Your task to perform on an android device: Open Android settings Image 0: 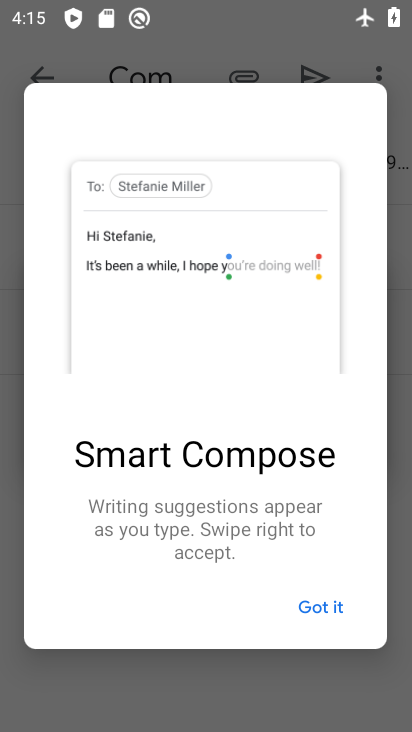
Step 0: press home button
Your task to perform on an android device: Open Android settings Image 1: 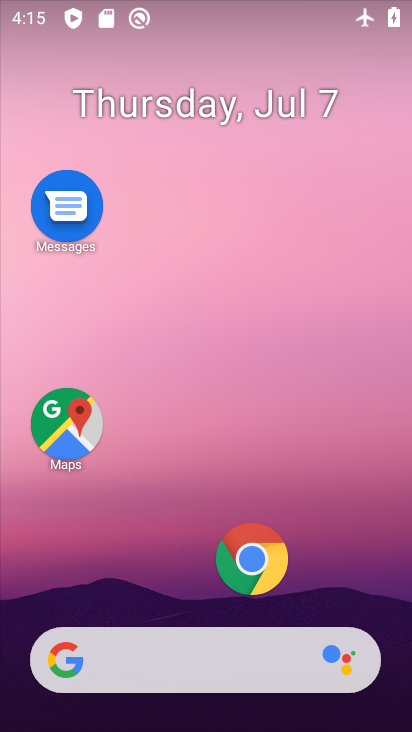
Step 1: drag from (180, 635) to (139, 0)
Your task to perform on an android device: Open Android settings Image 2: 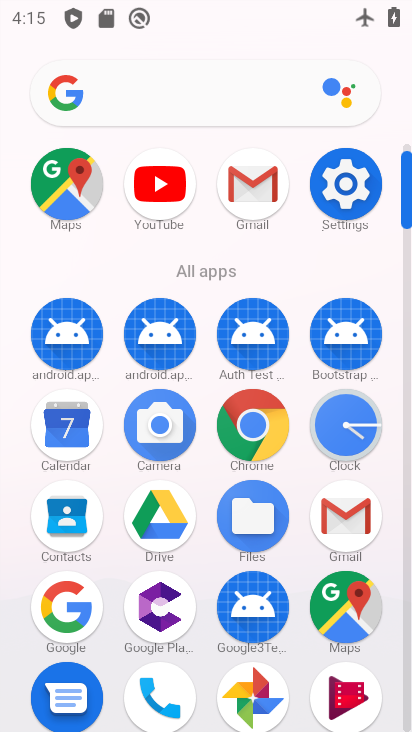
Step 2: click (329, 191)
Your task to perform on an android device: Open Android settings Image 3: 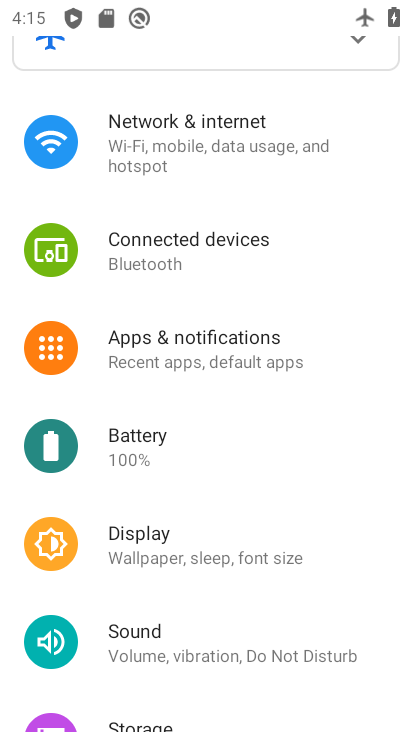
Step 3: drag from (273, 669) to (267, 142)
Your task to perform on an android device: Open Android settings Image 4: 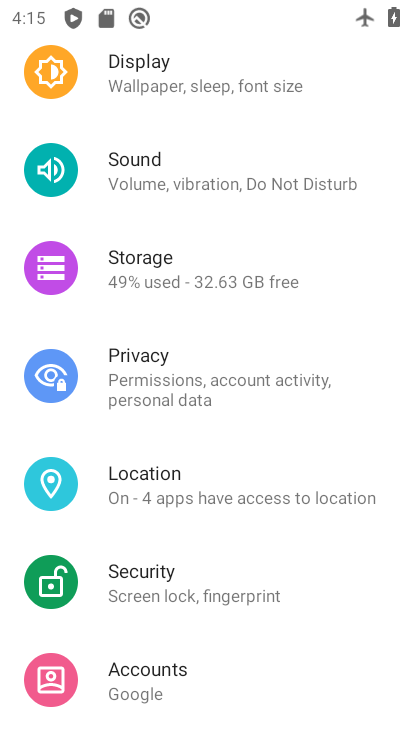
Step 4: drag from (224, 713) to (197, 71)
Your task to perform on an android device: Open Android settings Image 5: 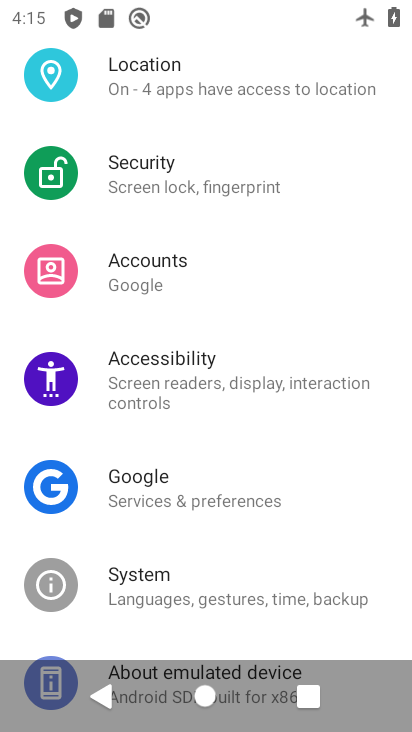
Step 5: drag from (211, 528) to (205, 70)
Your task to perform on an android device: Open Android settings Image 6: 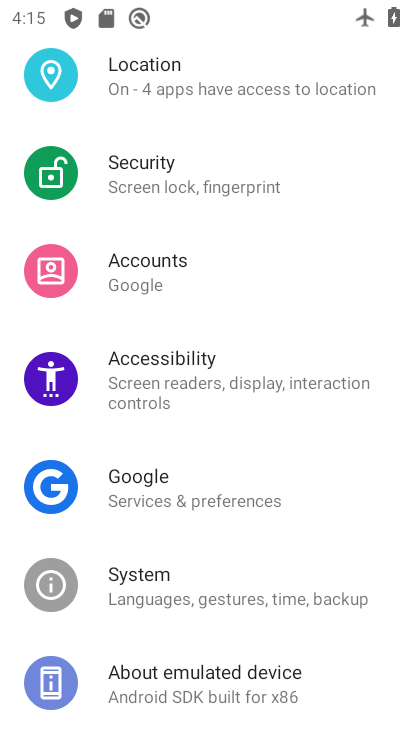
Step 6: click (189, 649)
Your task to perform on an android device: Open Android settings Image 7: 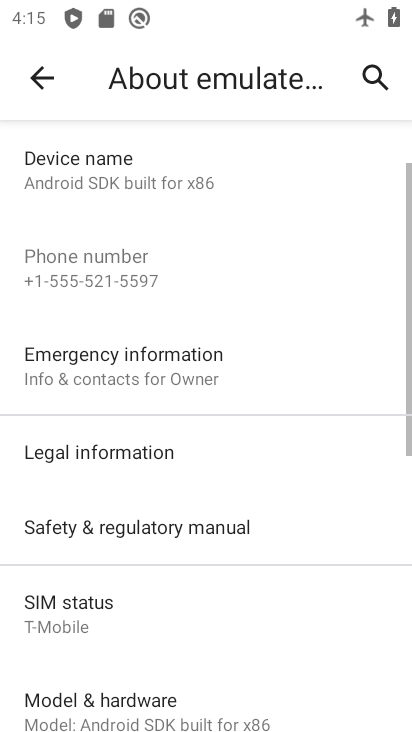
Step 7: task complete